Your task to perform on an android device: Search for floor lamps on article.com Image 0: 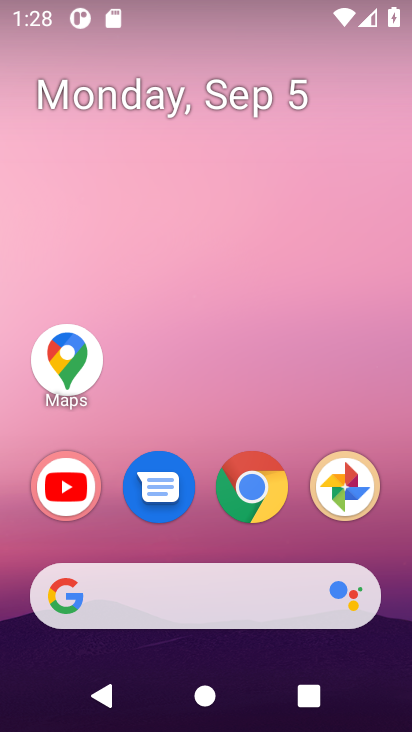
Step 0: click (224, 479)
Your task to perform on an android device: Search for floor lamps on article.com Image 1: 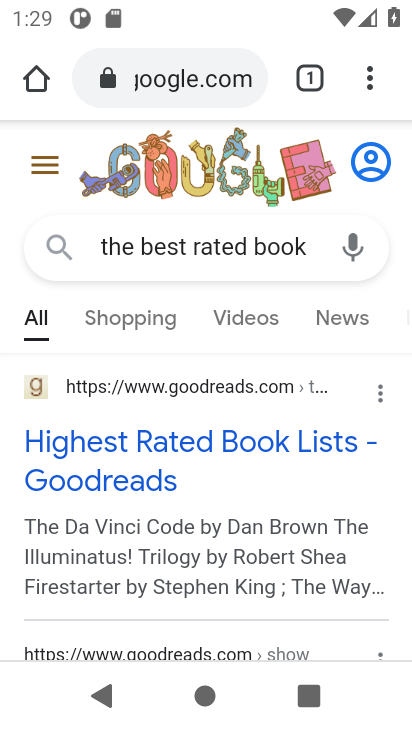
Step 1: click (152, 74)
Your task to perform on an android device: Search for floor lamps on article.com Image 2: 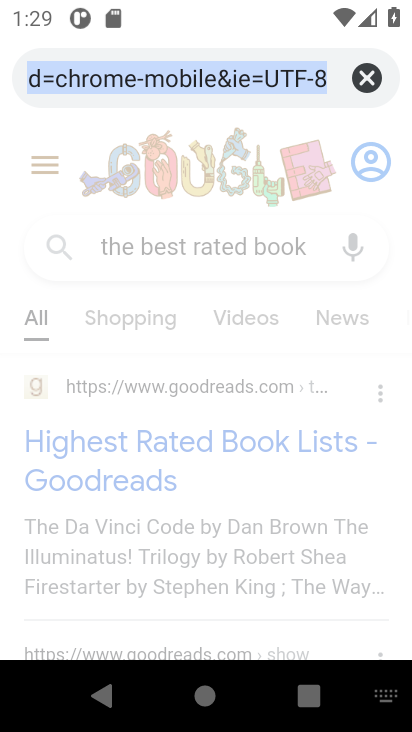
Step 2: click (359, 74)
Your task to perform on an android device: Search for floor lamps on article.com Image 3: 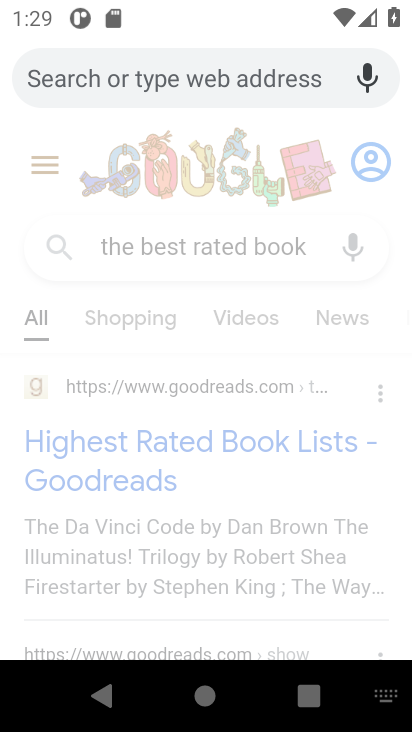
Step 3: type " floor lamps on article.com"
Your task to perform on an android device: Search for floor lamps on article.com Image 4: 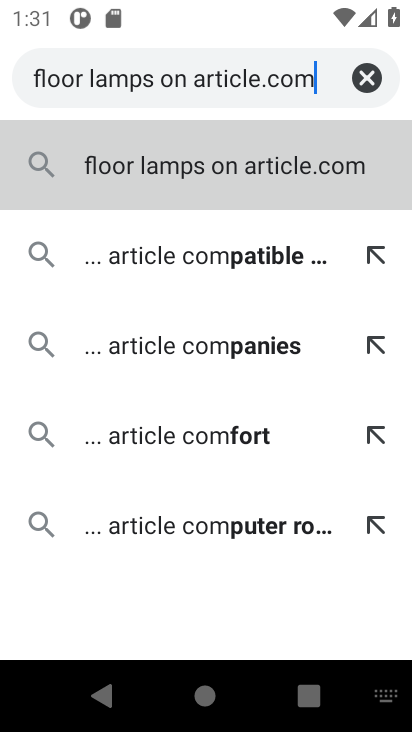
Step 4: click (205, 150)
Your task to perform on an android device: Search for floor lamps on article.com Image 5: 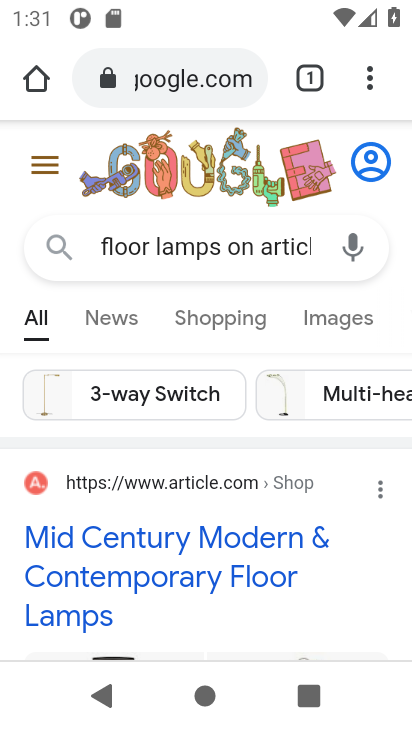
Step 5: task complete